Your task to perform on an android device: Go to Wikipedia Image 0: 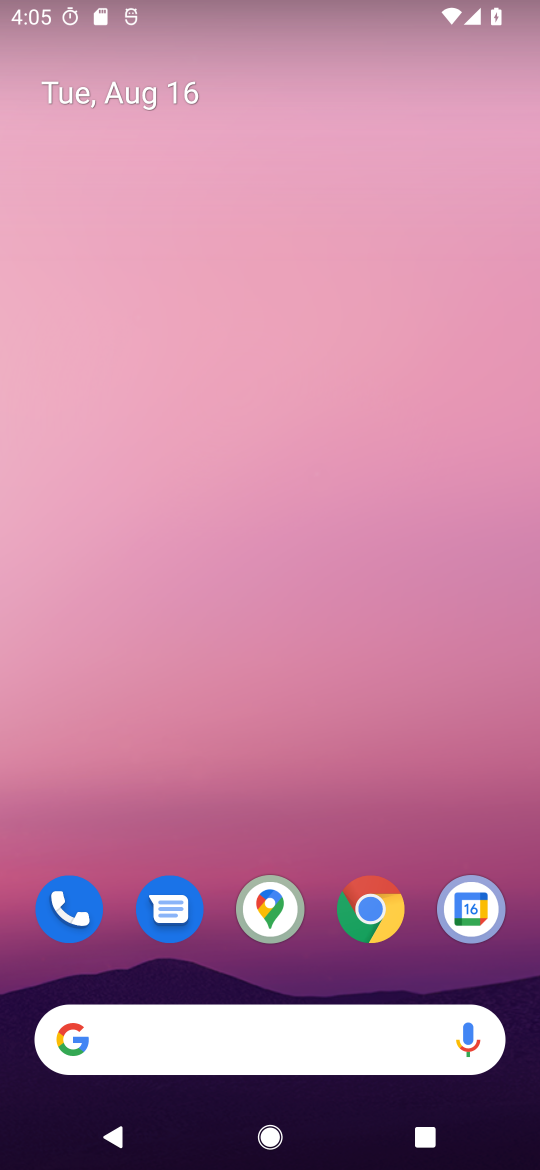
Step 0: click (364, 929)
Your task to perform on an android device: Go to Wikipedia Image 1: 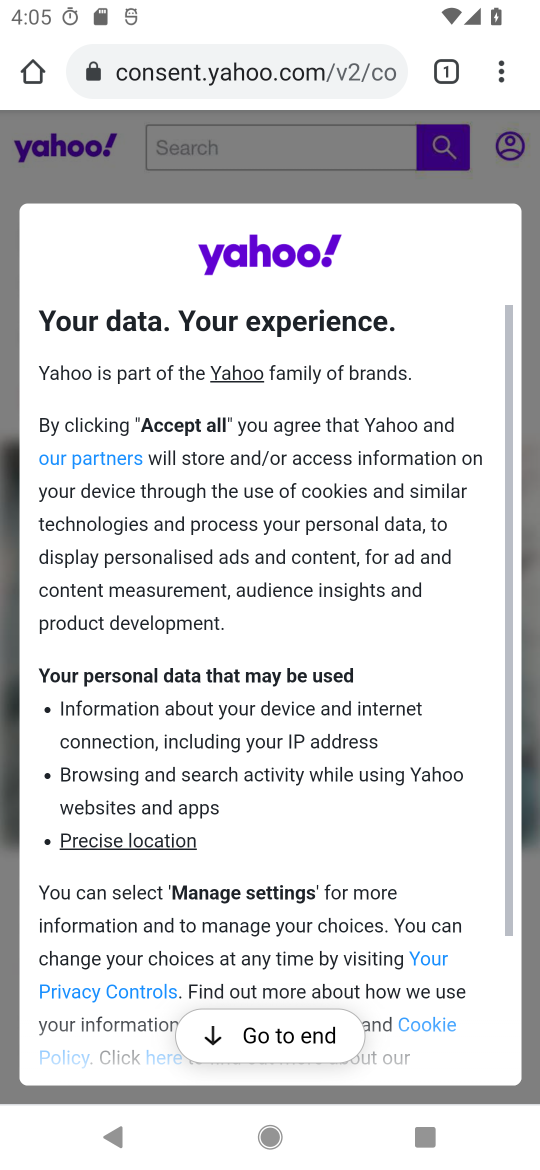
Step 1: click (288, 60)
Your task to perform on an android device: Go to Wikipedia Image 2: 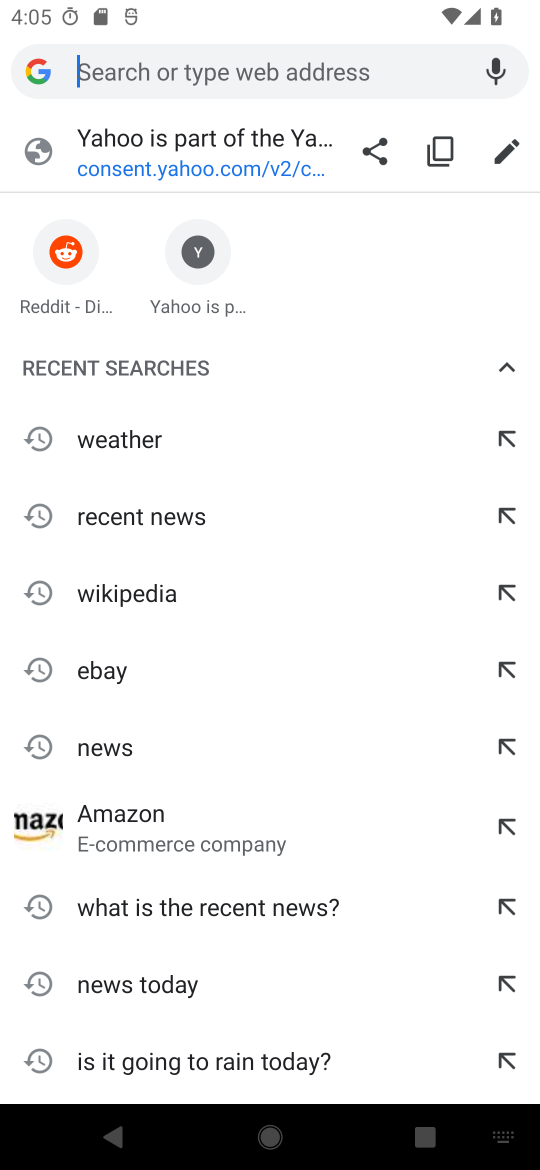
Step 2: type "Wikipedia"
Your task to perform on an android device: Go to Wikipedia Image 3: 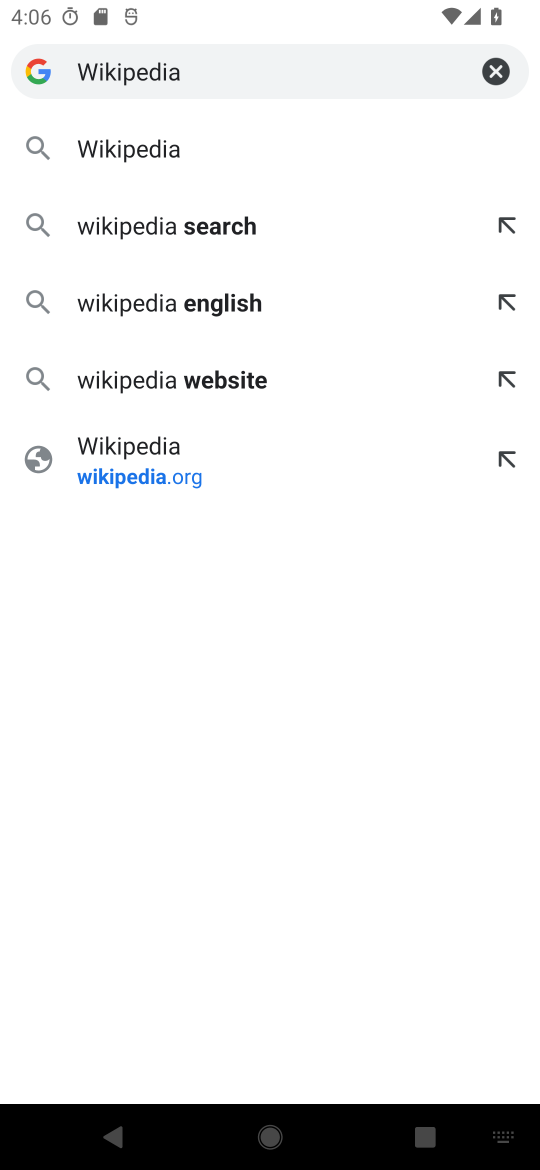
Step 3: click (103, 159)
Your task to perform on an android device: Go to Wikipedia Image 4: 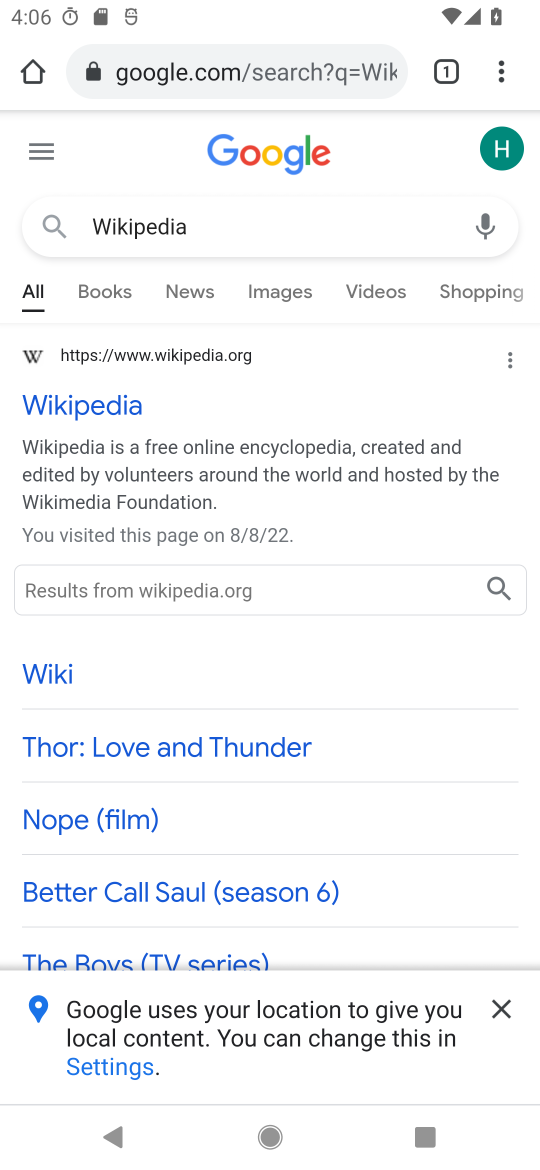
Step 4: click (52, 398)
Your task to perform on an android device: Go to Wikipedia Image 5: 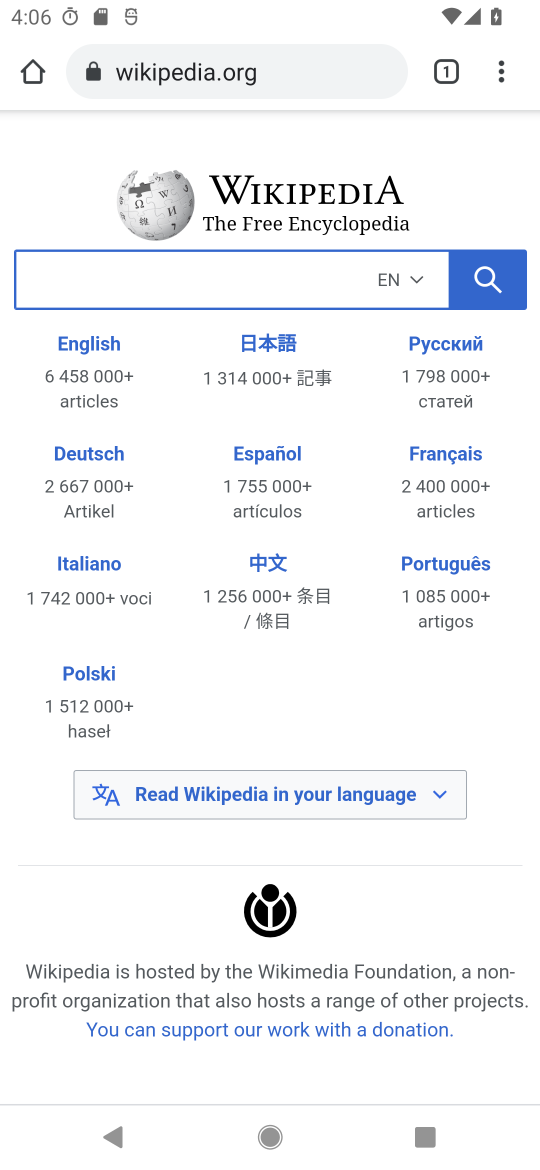
Step 5: task complete